Your task to perform on an android device: Show me the alarms in the clock app Image 0: 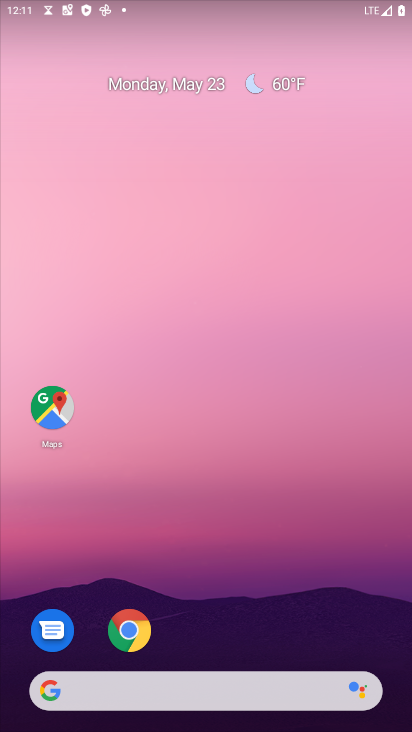
Step 0: drag from (244, 628) to (185, 13)
Your task to perform on an android device: Show me the alarms in the clock app Image 1: 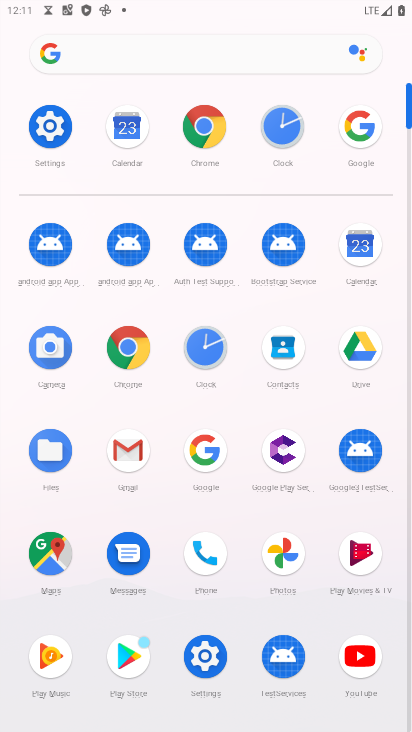
Step 1: click (282, 128)
Your task to perform on an android device: Show me the alarms in the clock app Image 2: 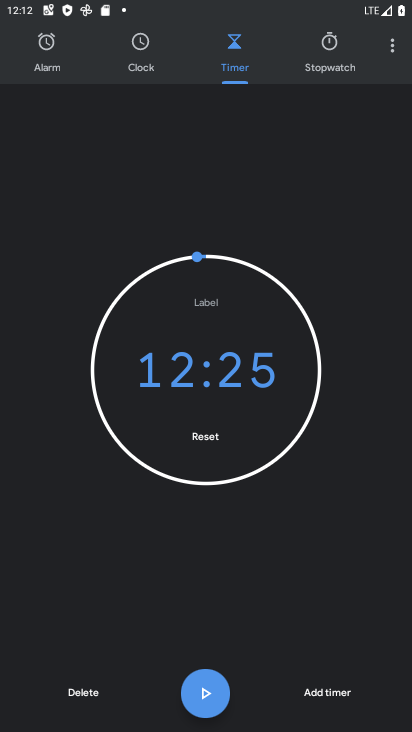
Step 2: click (52, 50)
Your task to perform on an android device: Show me the alarms in the clock app Image 3: 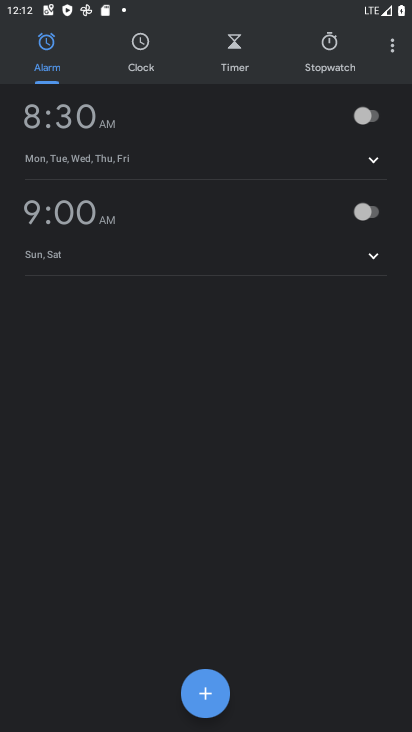
Step 3: task complete